Your task to perform on an android device: change timer sound Image 0: 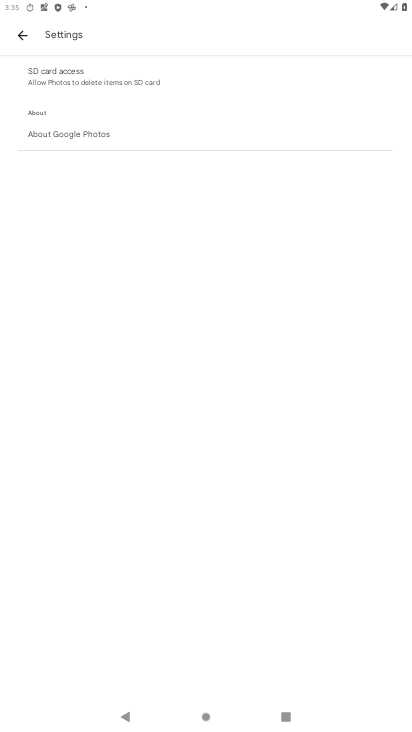
Step 0: press home button
Your task to perform on an android device: change timer sound Image 1: 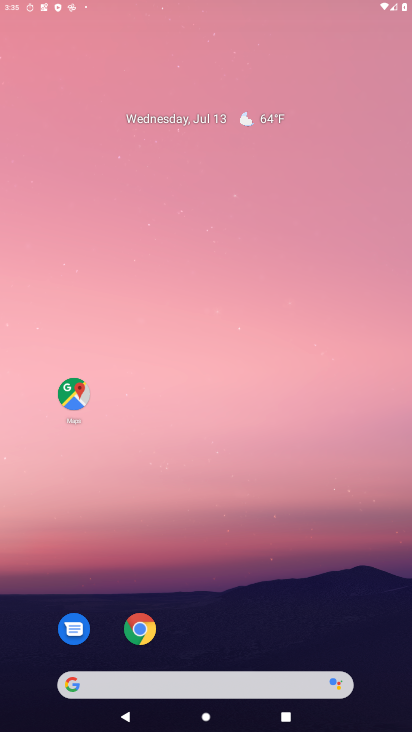
Step 1: drag from (279, 658) to (244, 24)
Your task to perform on an android device: change timer sound Image 2: 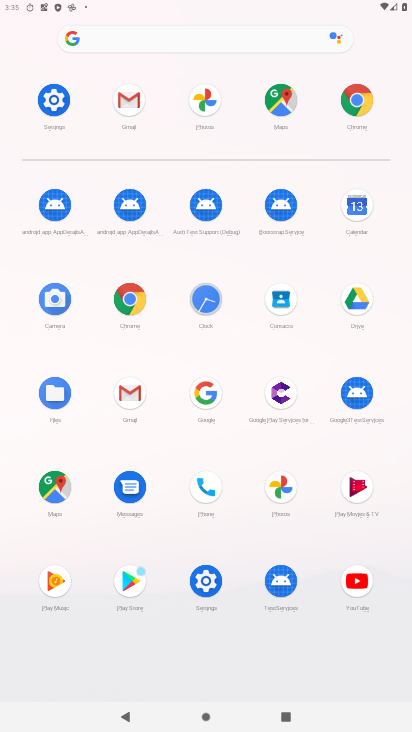
Step 2: click (212, 300)
Your task to perform on an android device: change timer sound Image 3: 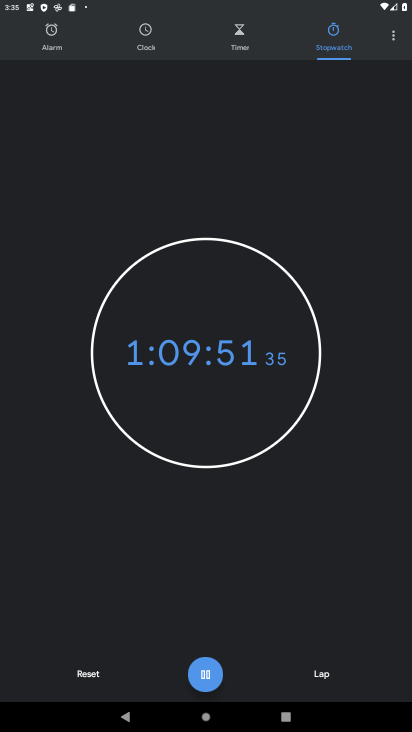
Step 3: click (386, 29)
Your task to perform on an android device: change timer sound Image 4: 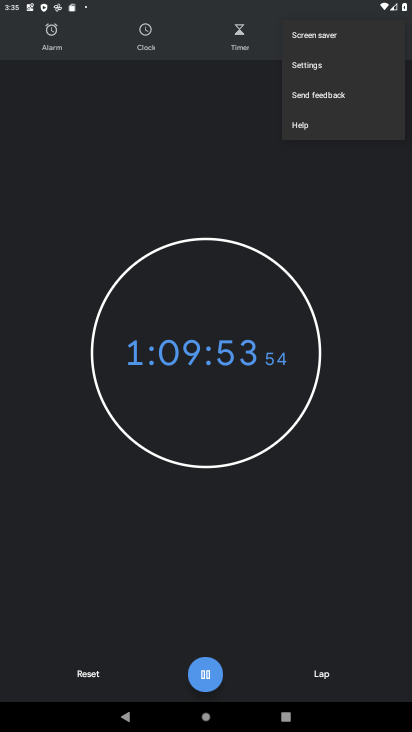
Step 4: click (328, 69)
Your task to perform on an android device: change timer sound Image 5: 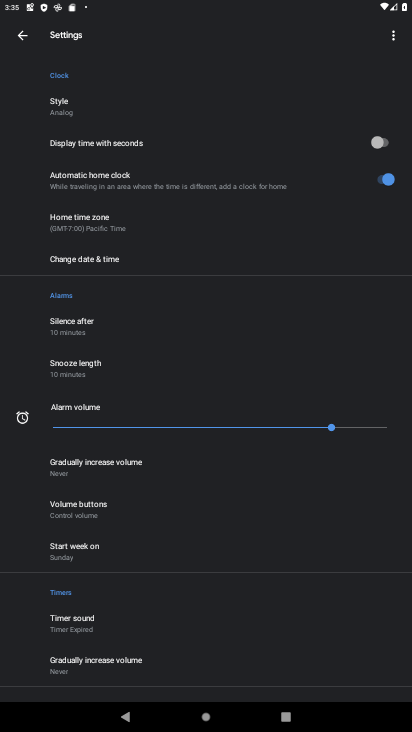
Step 5: click (95, 613)
Your task to perform on an android device: change timer sound Image 6: 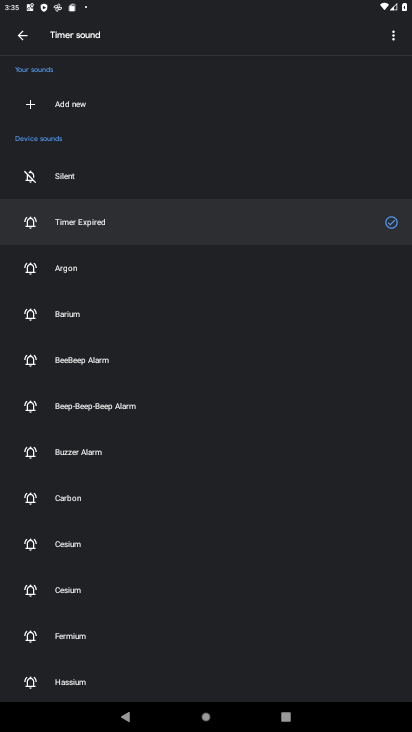
Step 6: click (82, 259)
Your task to perform on an android device: change timer sound Image 7: 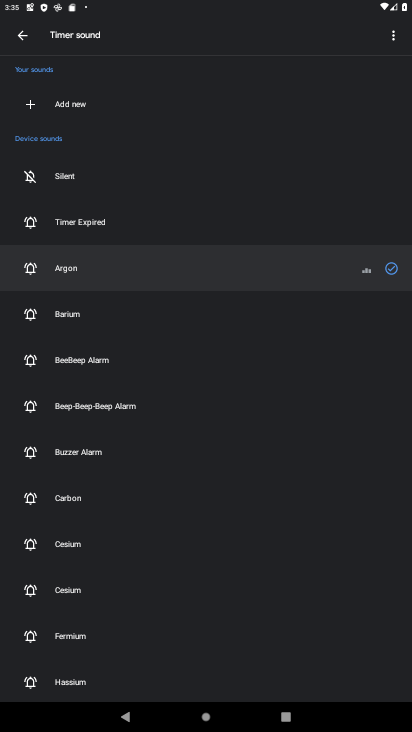
Step 7: task complete